Your task to perform on an android device: change your default location settings in chrome Image 0: 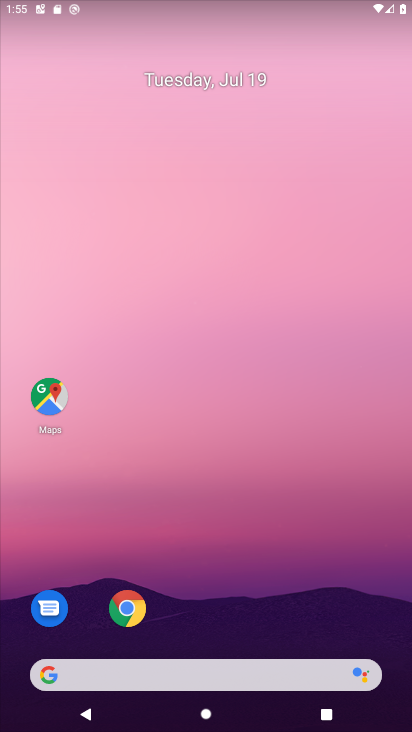
Step 0: drag from (227, 627) to (300, 160)
Your task to perform on an android device: change your default location settings in chrome Image 1: 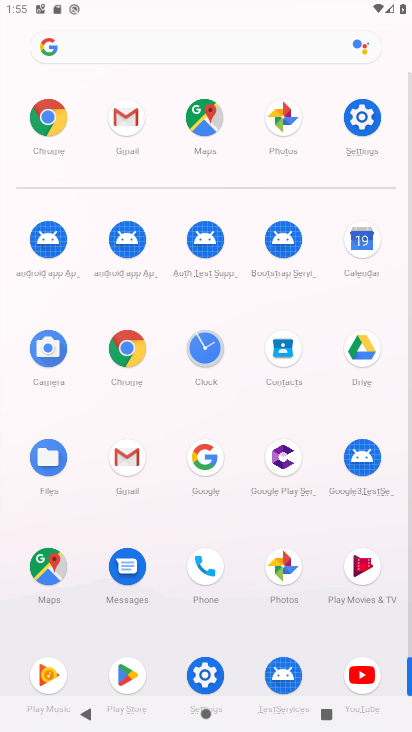
Step 1: click (131, 363)
Your task to perform on an android device: change your default location settings in chrome Image 2: 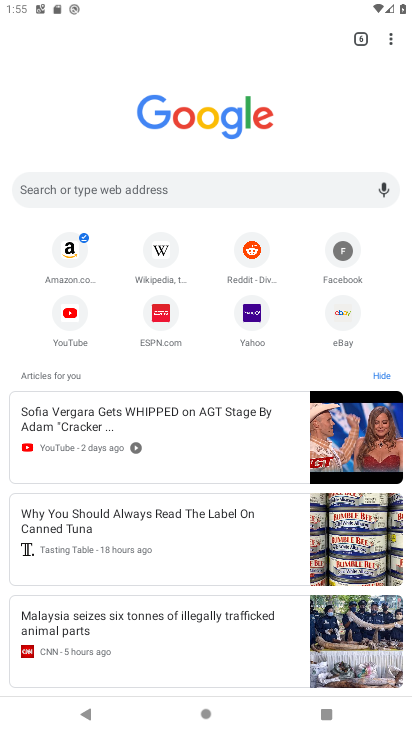
Step 2: click (391, 44)
Your task to perform on an android device: change your default location settings in chrome Image 3: 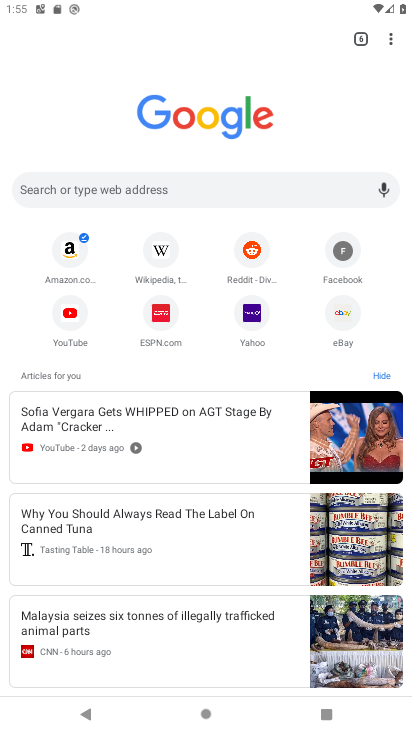
Step 3: click (390, 44)
Your task to perform on an android device: change your default location settings in chrome Image 4: 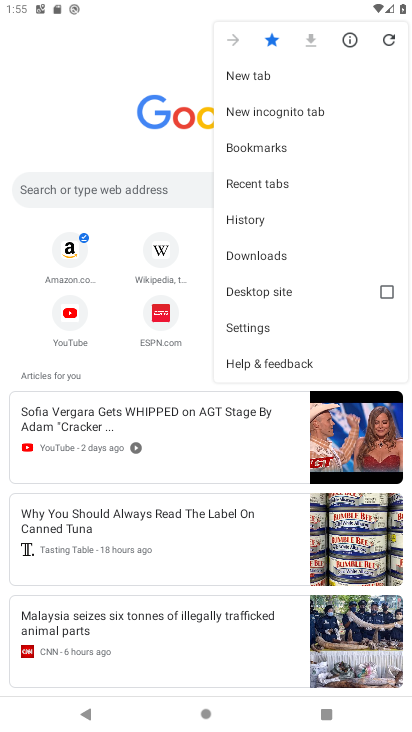
Step 4: click (251, 322)
Your task to perform on an android device: change your default location settings in chrome Image 5: 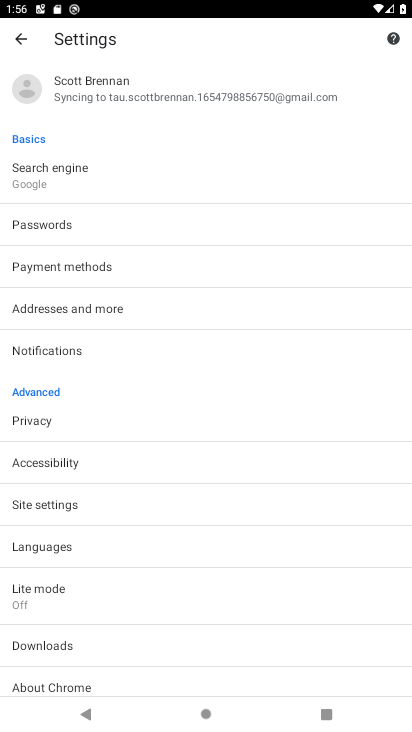
Step 5: click (81, 509)
Your task to perform on an android device: change your default location settings in chrome Image 6: 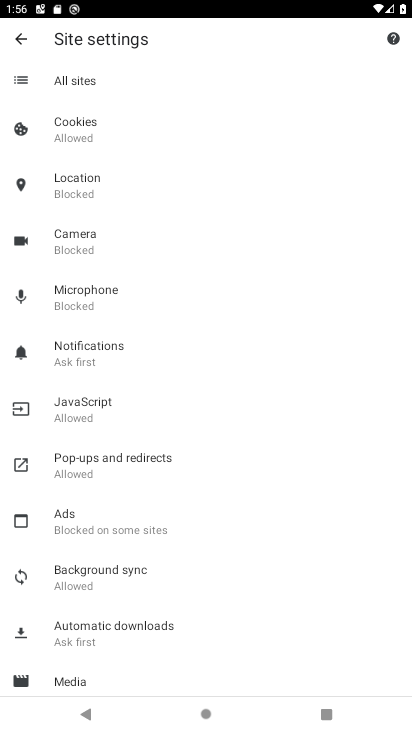
Step 6: click (118, 184)
Your task to perform on an android device: change your default location settings in chrome Image 7: 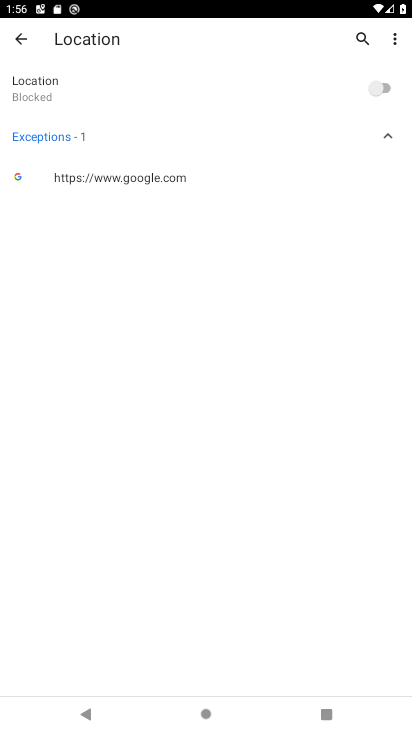
Step 7: click (379, 93)
Your task to perform on an android device: change your default location settings in chrome Image 8: 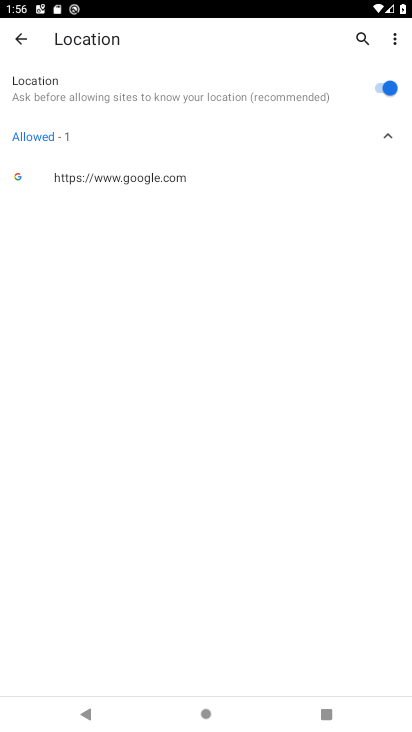
Step 8: task complete